Your task to perform on an android device: Show me recent news Image 0: 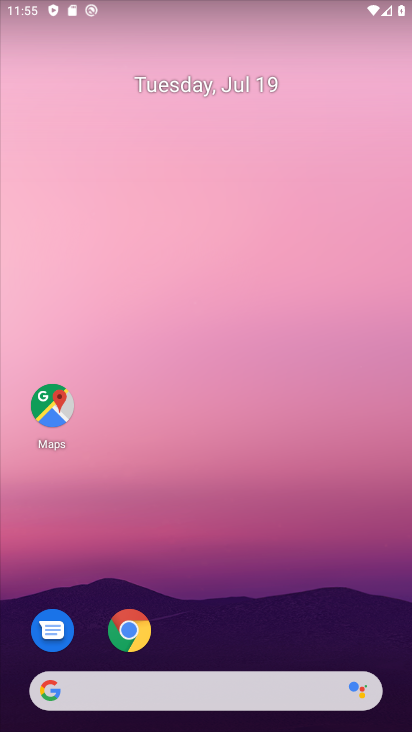
Step 0: click (255, 693)
Your task to perform on an android device: Show me recent news Image 1: 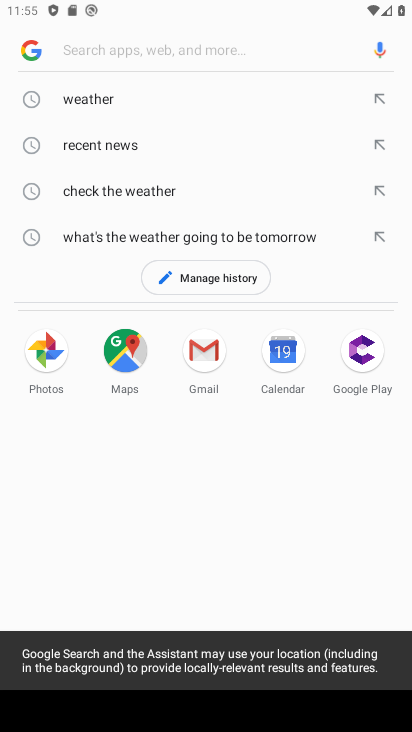
Step 1: click (121, 147)
Your task to perform on an android device: Show me recent news Image 2: 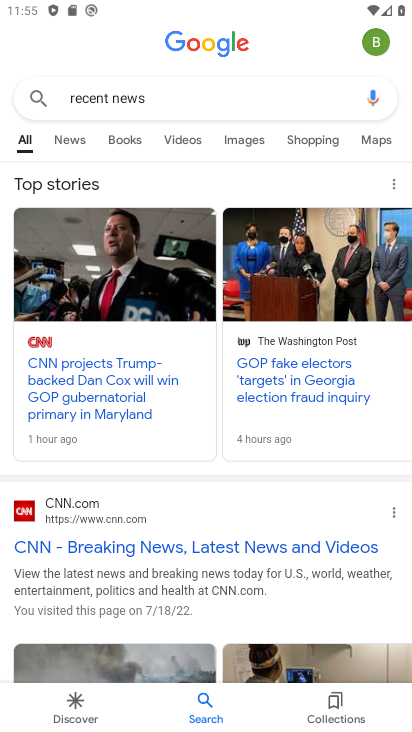
Step 2: task complete